Your task to perform on an android device: Open battery settings Image 0: 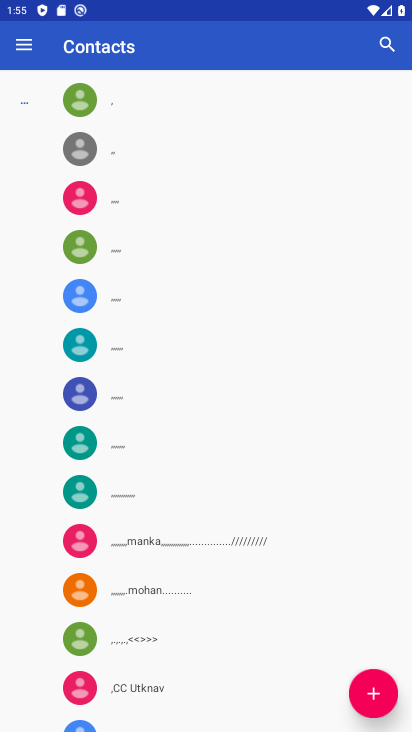
Step 0: press home button
Your task to perform on an android device: Open battery settings Image 1: 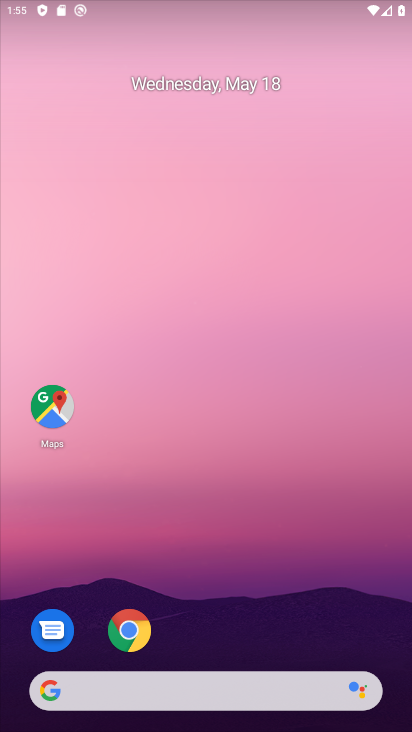
Step 1: drag from (190, 623) to (207, 146)
Your task to perform on an android device: Open battery settings Image 2: 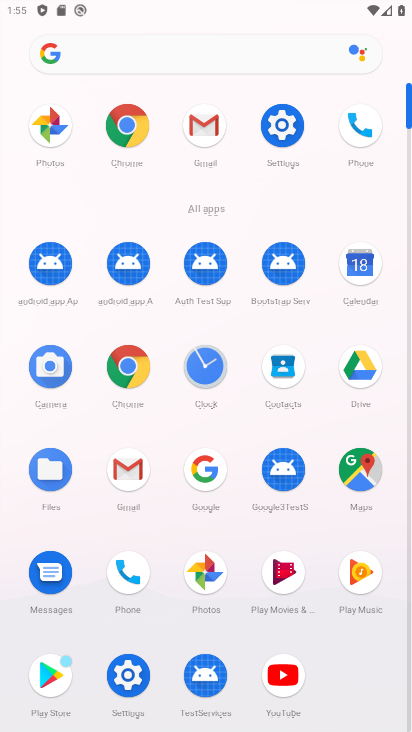
Step 2: click (281, 151)
Your task to perform on an android device: Open battery settings Image 3: 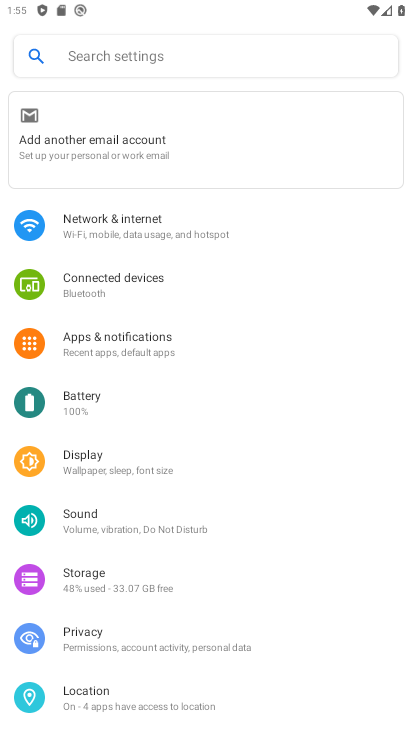
Step 3: click (111, 399)
Your task to perform on an android device: Open battery settings Image 4: 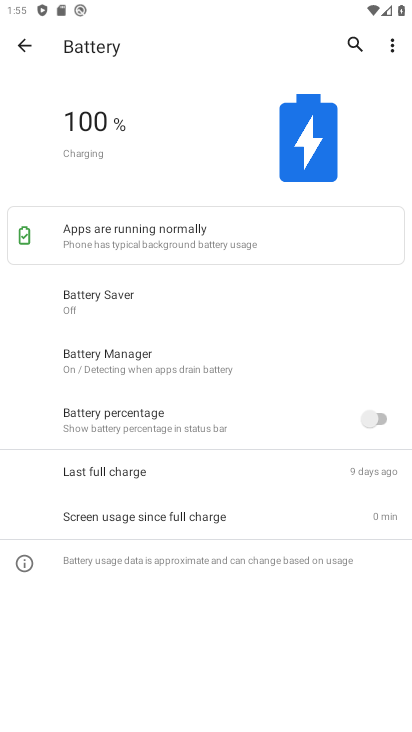
Step 4: task complete